Your task to perform on an android device: set the timer Image 0: 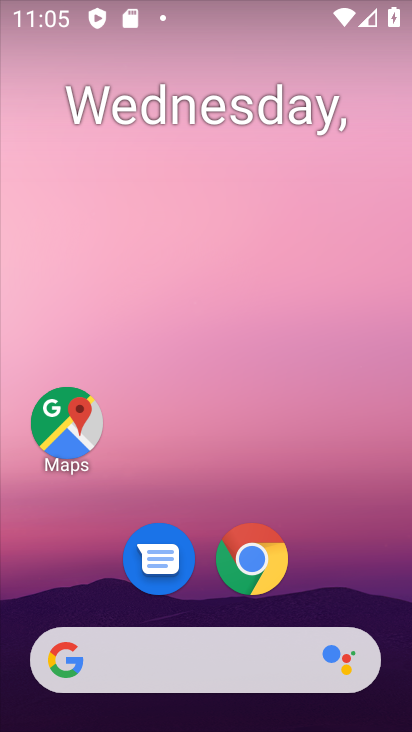
Step 0: drag from (387, 606) to (358, 142)
Your task to perform on an android device: set the timer Image 1: 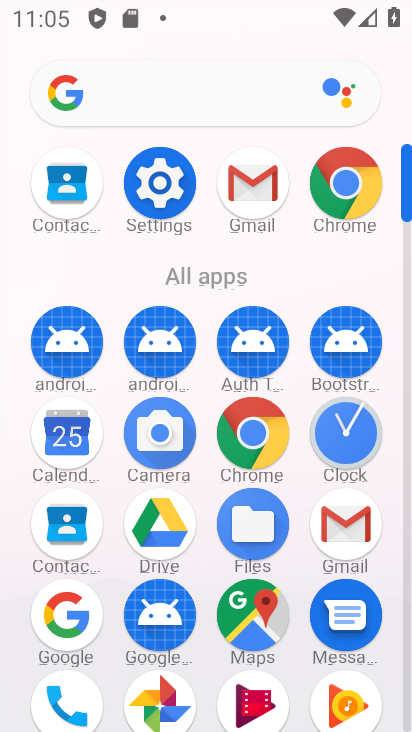
Step 1: click (348, 417)
Your task to perform on an android device: set the timer Image 2: 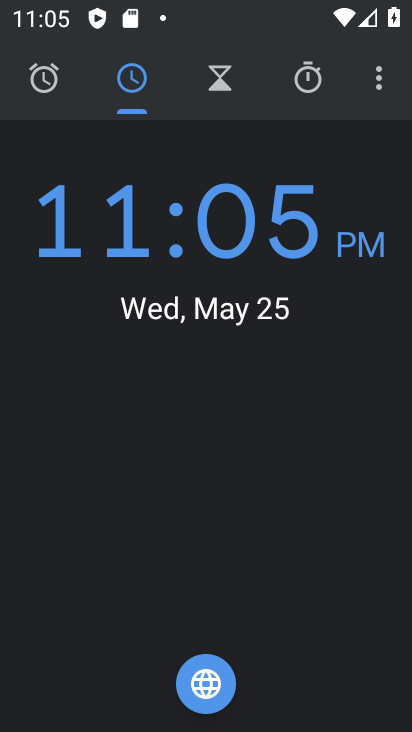
Step 2: click (231, 86)
Your task to perform on an android device: set the timer Image 3: 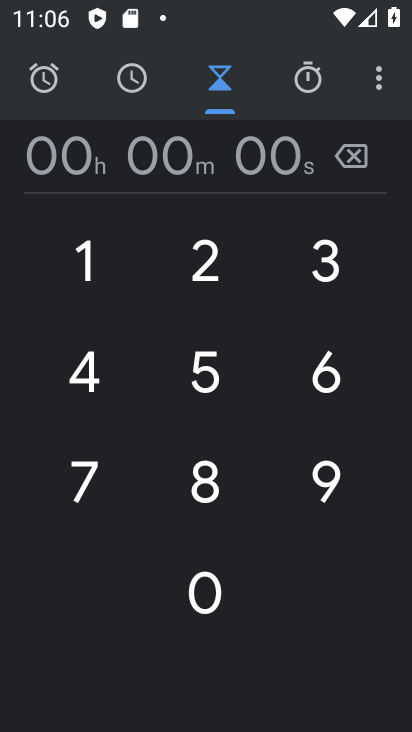
Step 3: type "9009000"
Your task to perform on an android device: set the timer Image 4: 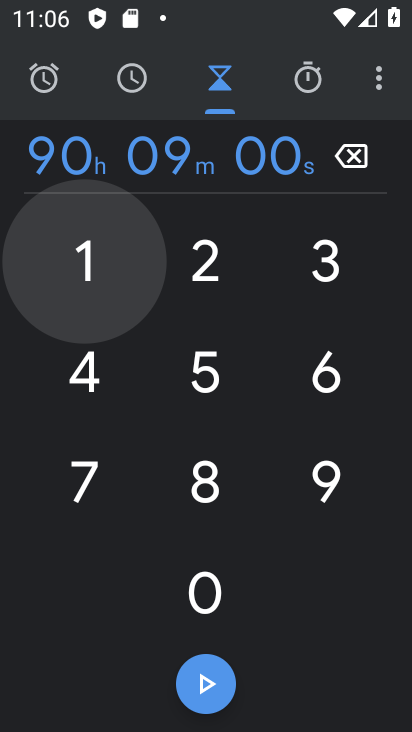
Step 4: click (226, 681)
Your task to perform on an android device: set the timer Image 5: 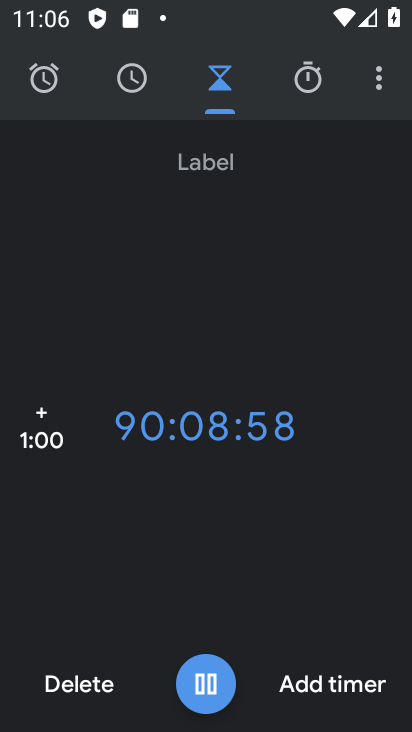
Step 5: task complete